Your task to perform on an android device: Open network settings Image 0: 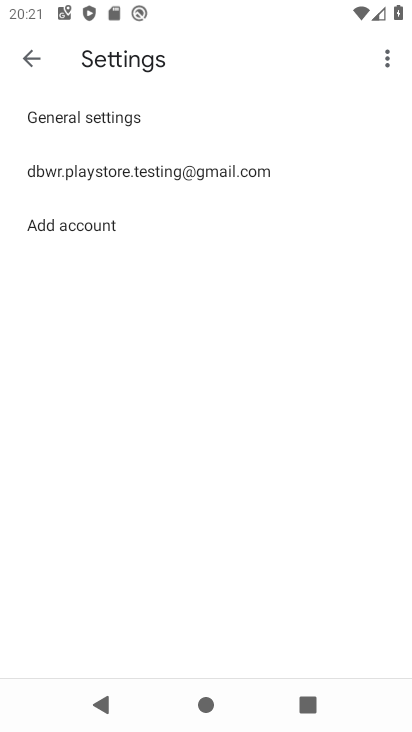
Step 0: press home button
Your task to perform on an android device: Open network settings Image 1: 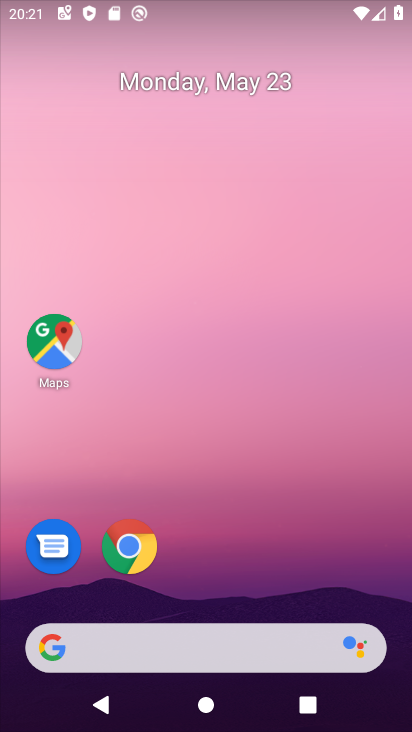
Step 1: drag from (352, 595) to (358, 234)
Your task to perform on an android device: Open network settings Image 2: 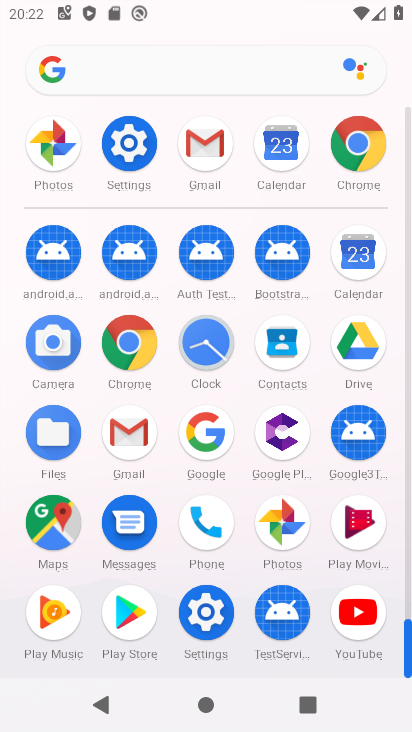
Step 2: click (214, 633)
Your task to perform on an android device: Open network settings Image 3: 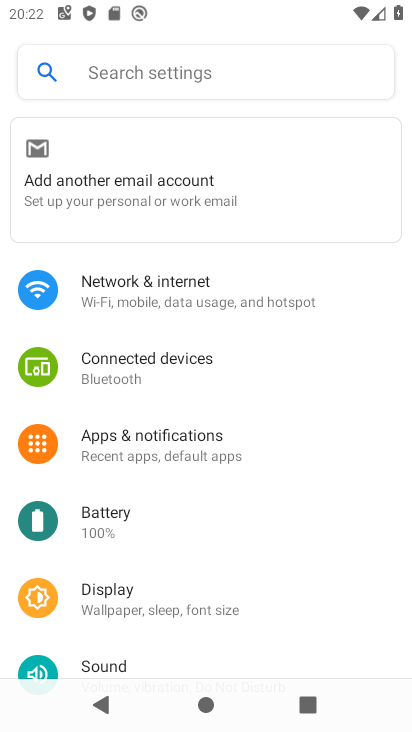
Step 3: drag from (325, 630) to (347, 546)
Your task to perform on an android device: Open network settings Image 4: 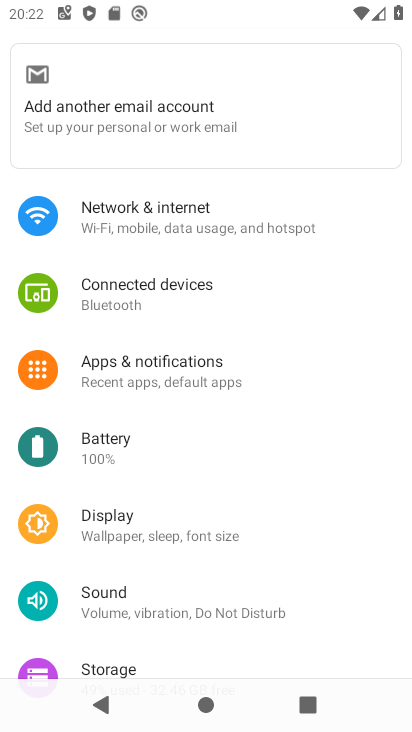
Step 4: drag from (364, 627) to (366, 521)
Your task to perform on an android device: Open network settings Image 5: 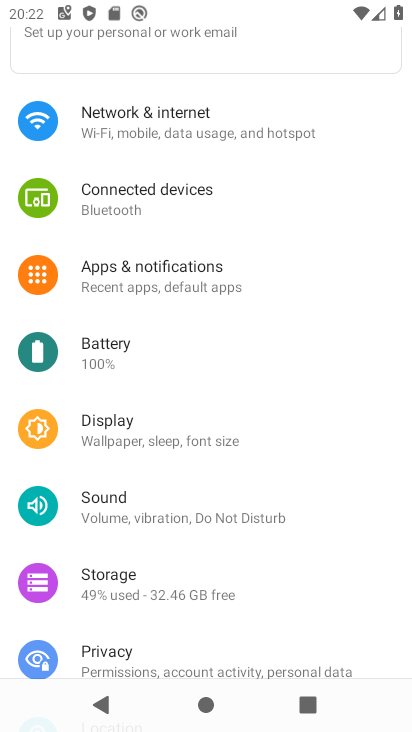
Step 5: drag from (383, 634) to (382, 511)
Your task to perform on an android device: Open network settings Image 6: 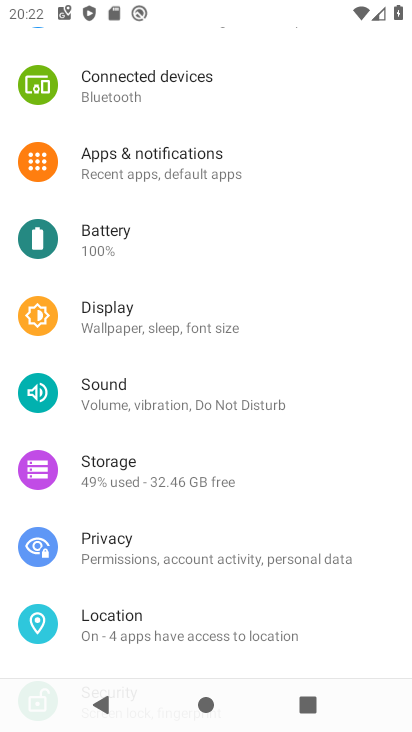
Step 6: drag from (387, 612) to (378, 488)
Your task to perform on an android device: Open network settings Image 7: 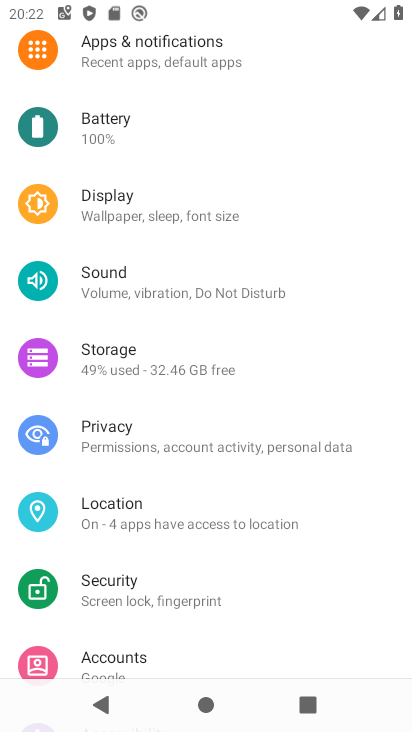
Step 7: drag from (362, 630) to (356, 514)
Your task to perform on an android device: Open network settings Image 8: 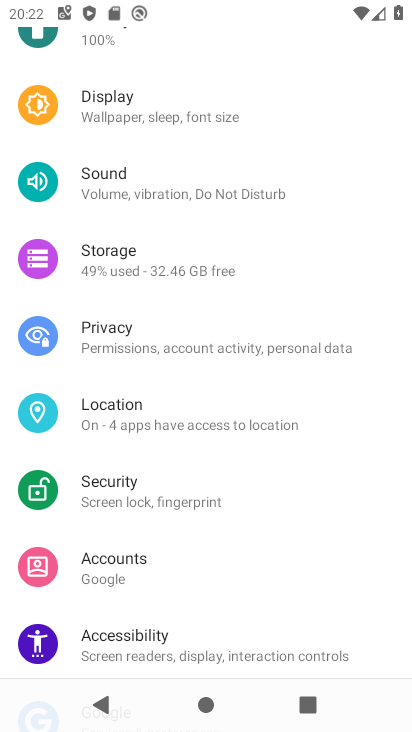
Step 8: drag from (353, 636) to (363, 501)
Your task to perform on an android device: Open network settings Image 9: 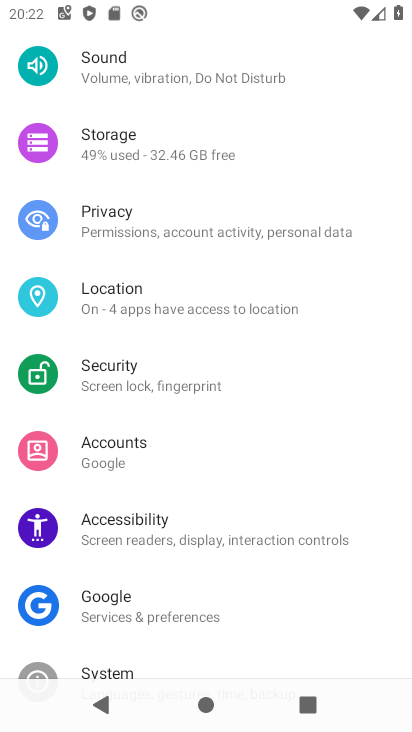
Step 9: drag from (362, 626) to (355, 427)
Your task to perform on an android device: Open network settings Image 10: 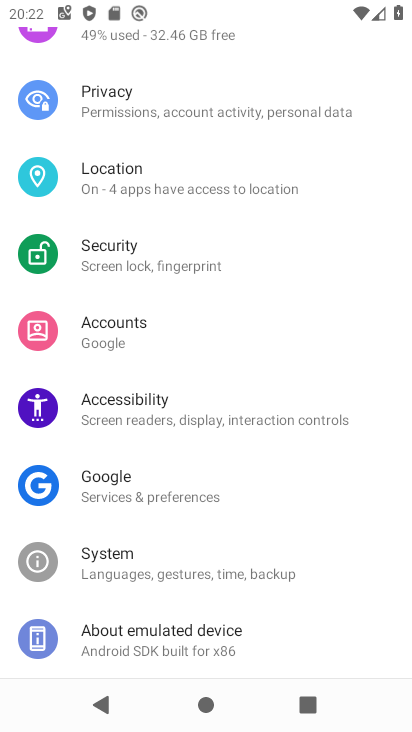
Step 10: drag from (365, 596) to (356, 461)
Your task to perform on an android device: Open network settings Image 11: 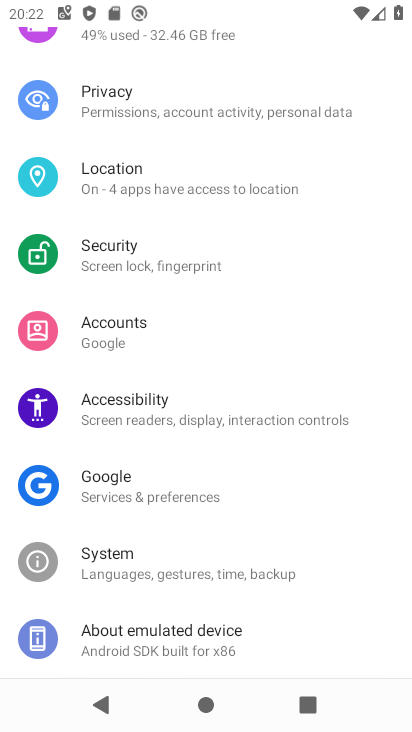
Step 11: drag from (368, 376) to (358, 504)
Your task to perform on an android device: Open network settings Image 12: 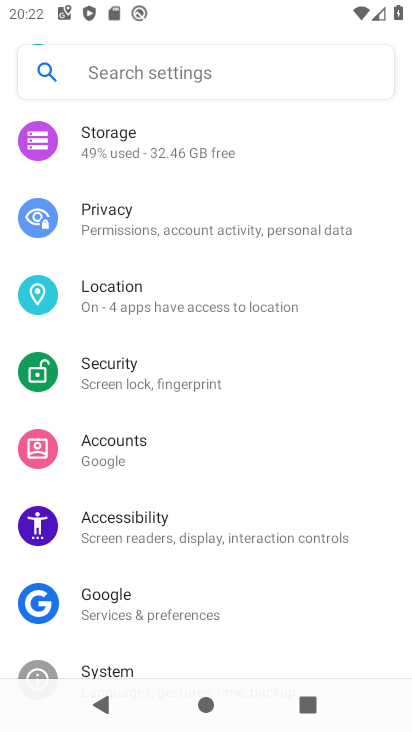
Step 12: drag from (366, 310) to (330, 459)
Your task to perform on an android device: Open network settings Image 13: 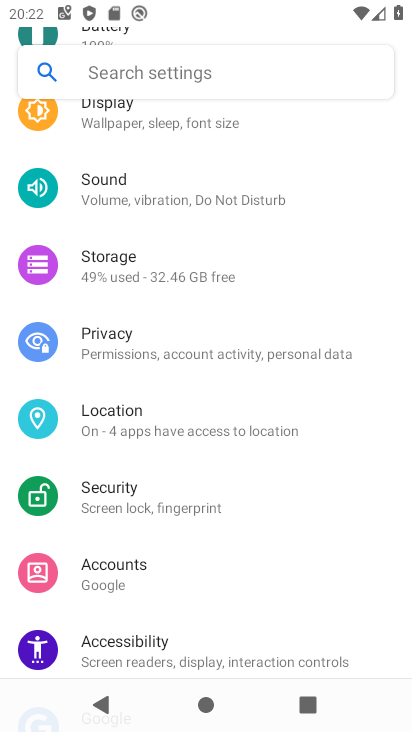
Step 13: drag from (375, 284) to (342, 463)
Your task to perform on an android device: Open network settings Image 14: 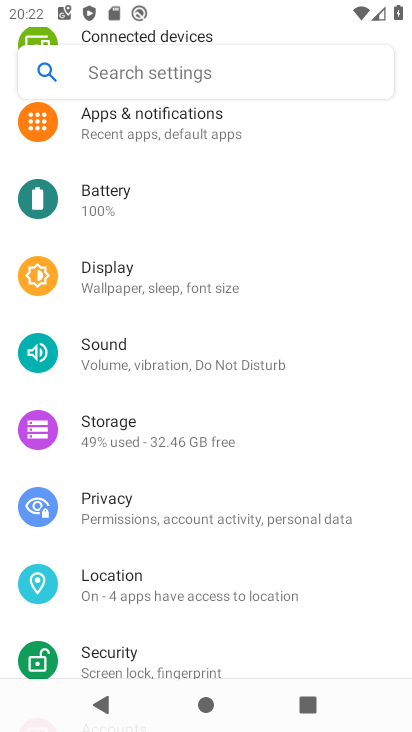
Step 14: drag from (355, 266) to (349, 365)
Your task to perform on an android device: Open network settings Image 15: 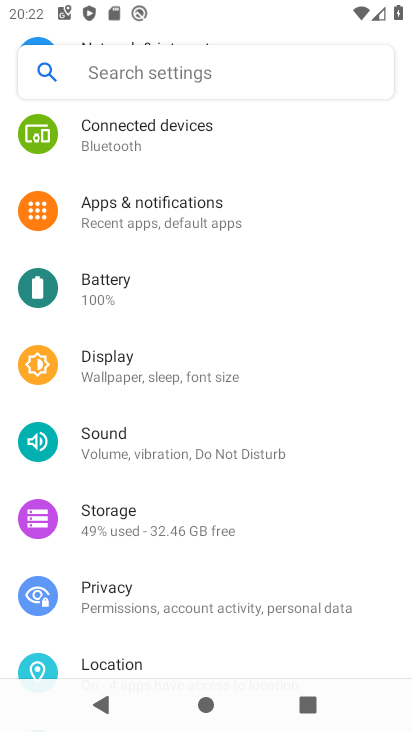
Step 15: drag from (356, 245) to (344, 386)
Your task to perform on an android device: Open network settings Image 16: 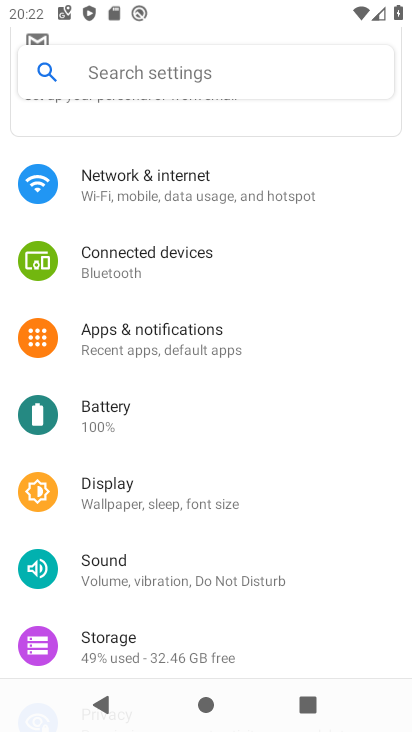
Step 16: drag from (345, 220) to (338, 339)
Your task to perform on an android device: Open network settings Image 17: 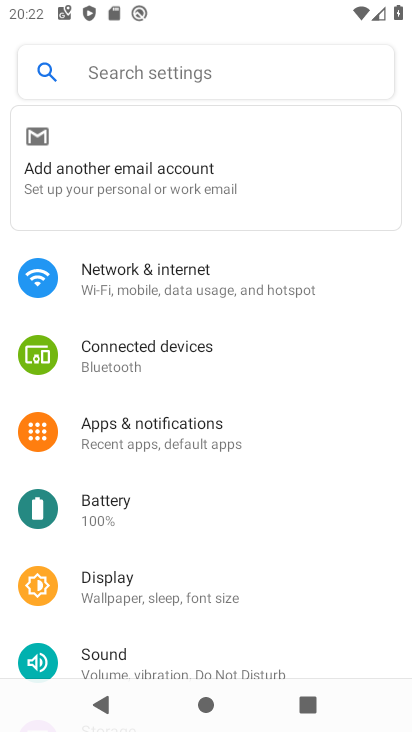
Step 17: click (292, 281)
Your task to perform on an android device: Open network settings Image 18: 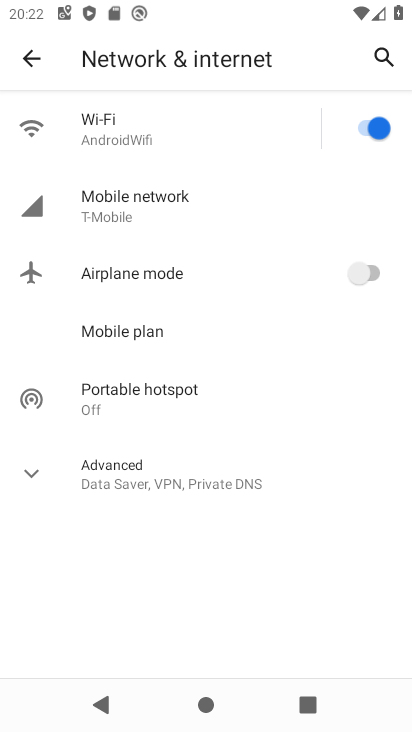
Step 18: task complete